Your task to perform on an android device: Show the shopping cart on newegg. Add "bose quietcomfort 35" to the cart on newegg Image 0: 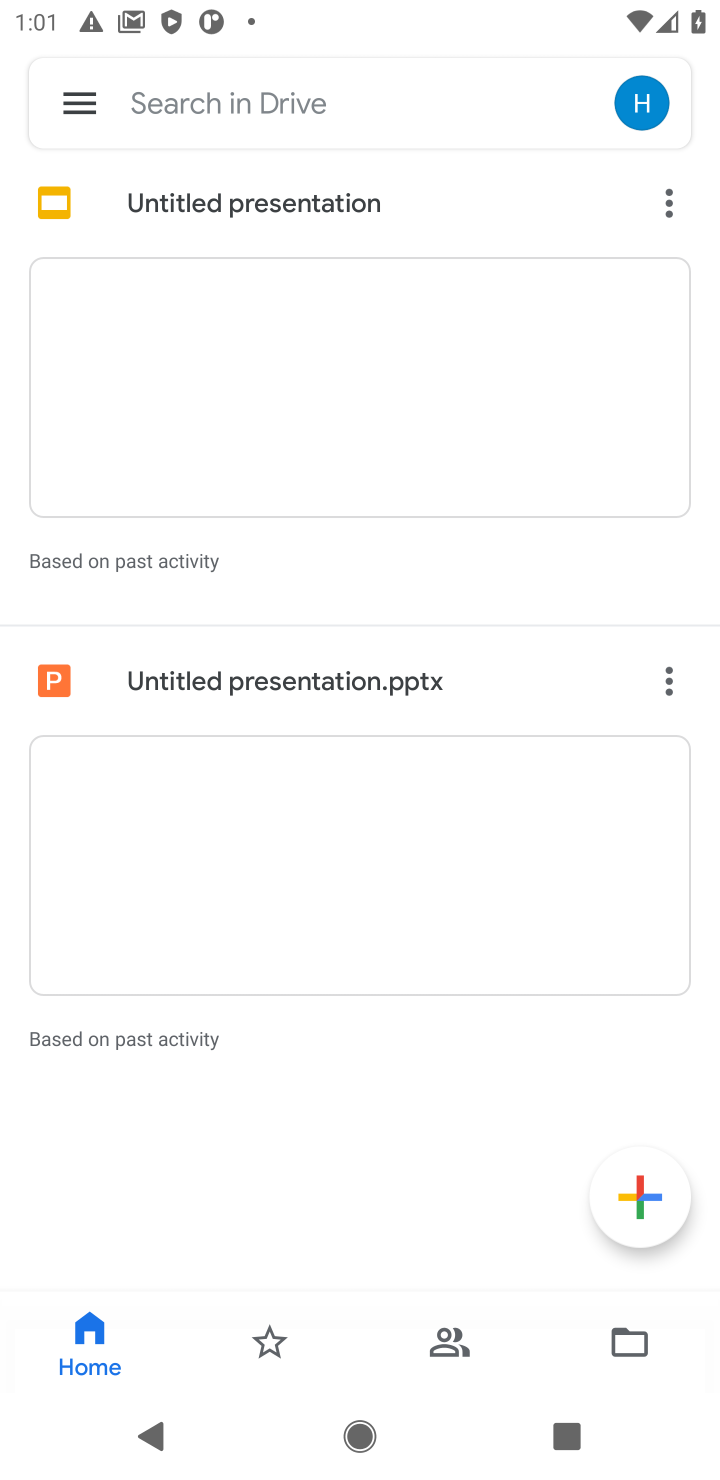
Step 0: press home button
Your task to perform on an android device: Show the shopping cart on newegg. Add "bose quietcomfort 35" to the cart on newegg Image 1: 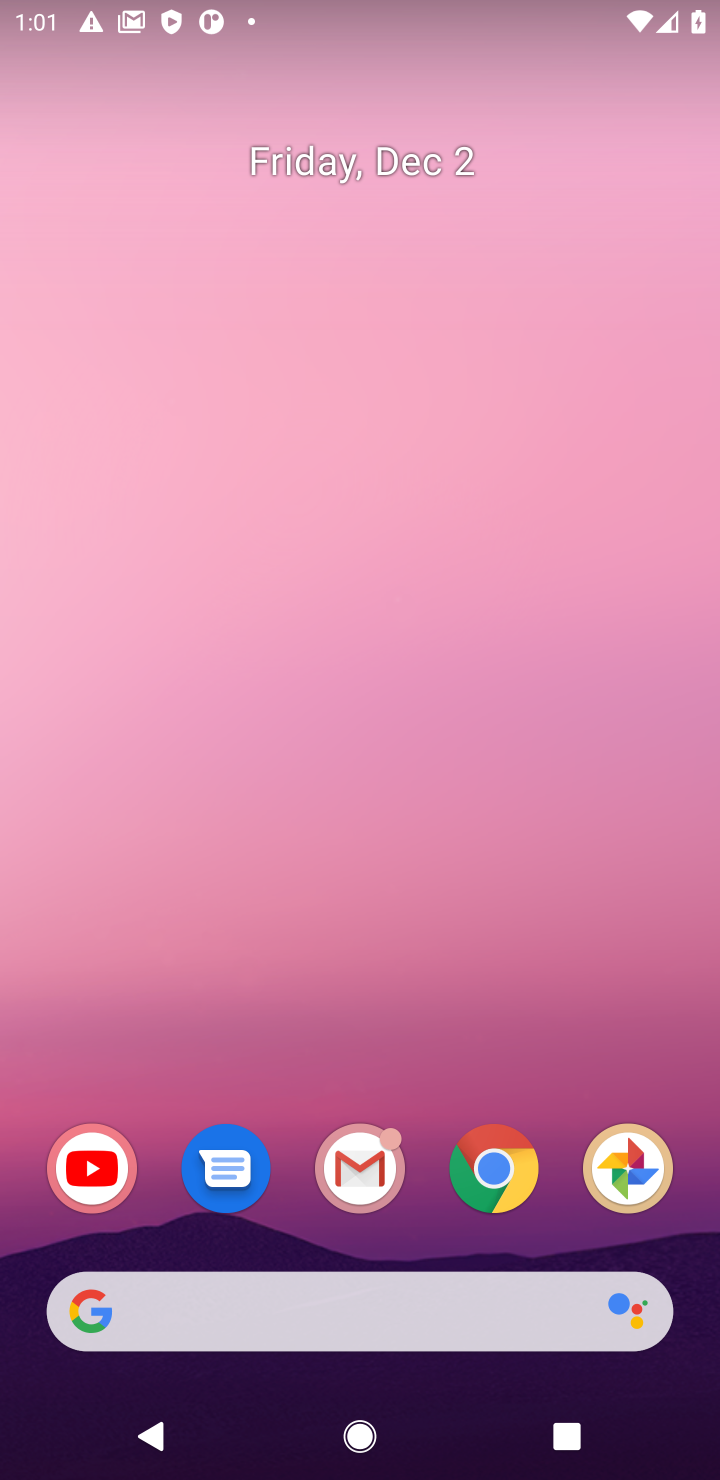
Step 1: click (502, 1172)
Your task to perform on an android device: Show the shopping cart on newegg. Add "bose quietcomfort 35" to the cart on newegg Image 2: 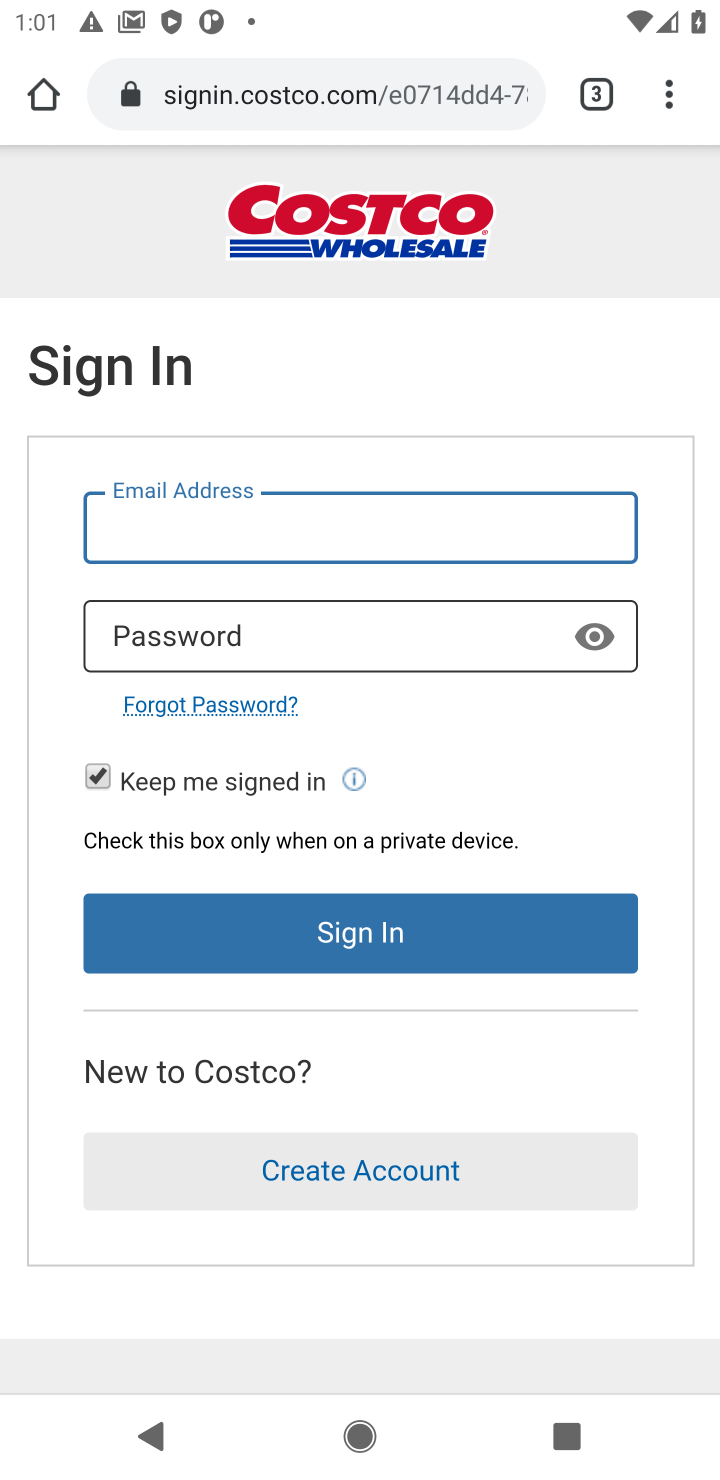
Step 2: click (248, 103)
Your task to perform on an android device: Show the shopping cart on newegg. Add "bose quietcomfort 35" to the cart on newegg Image 3: 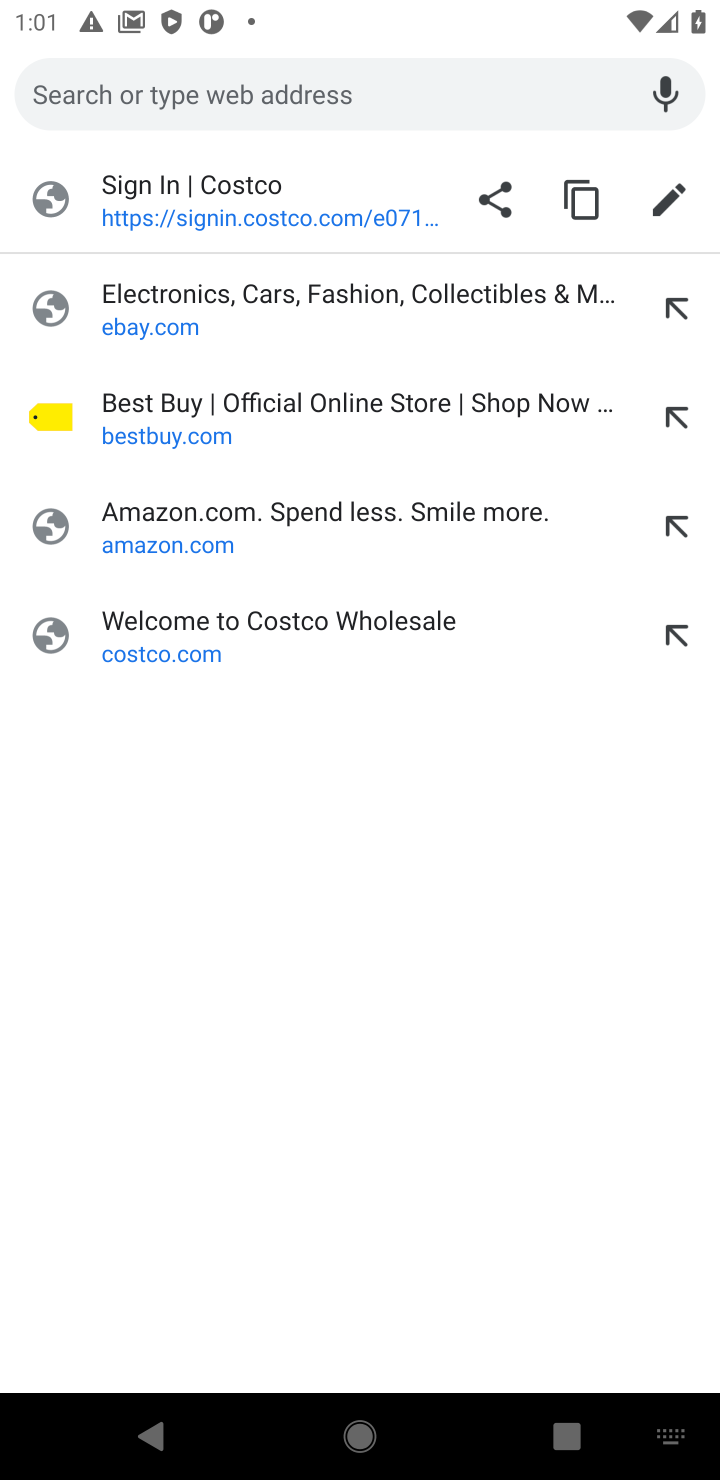
Step 3: type "newegg.com"
Your task to perform on an android device: Show the shopping cart on newegg. Add "bose quietcomfort 35" to the cart on newegg Image 4: 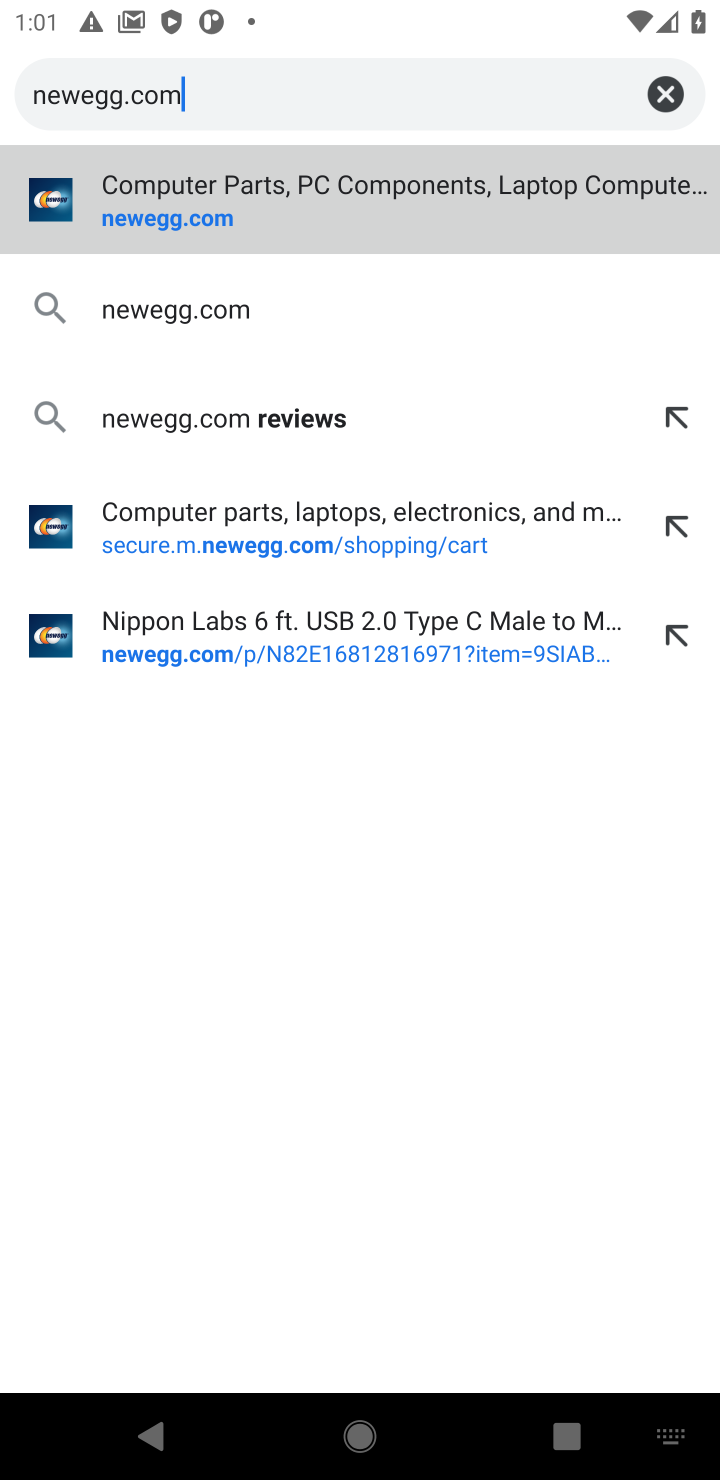
Step 4: click (176, 215)
Your task to perform on an android device: Show the shopping cart on newegg. Add "bose quietcomfort 35" to the cart on newegg Image 5: 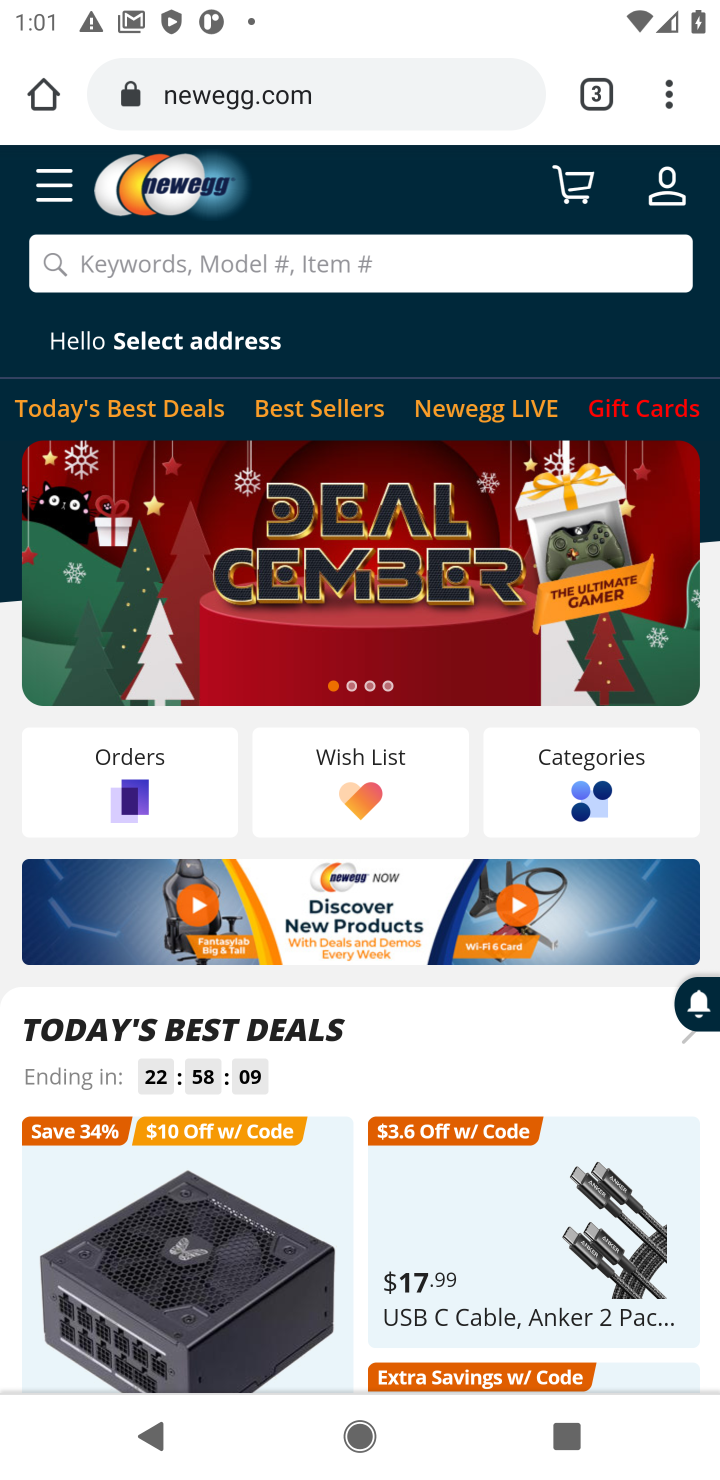
Step 5: click (578, 197)
Your task to perform on an android device: Show the shopping cart on newegg. Add "bose quietcomfort 35" to the cart on newegg Image 6: 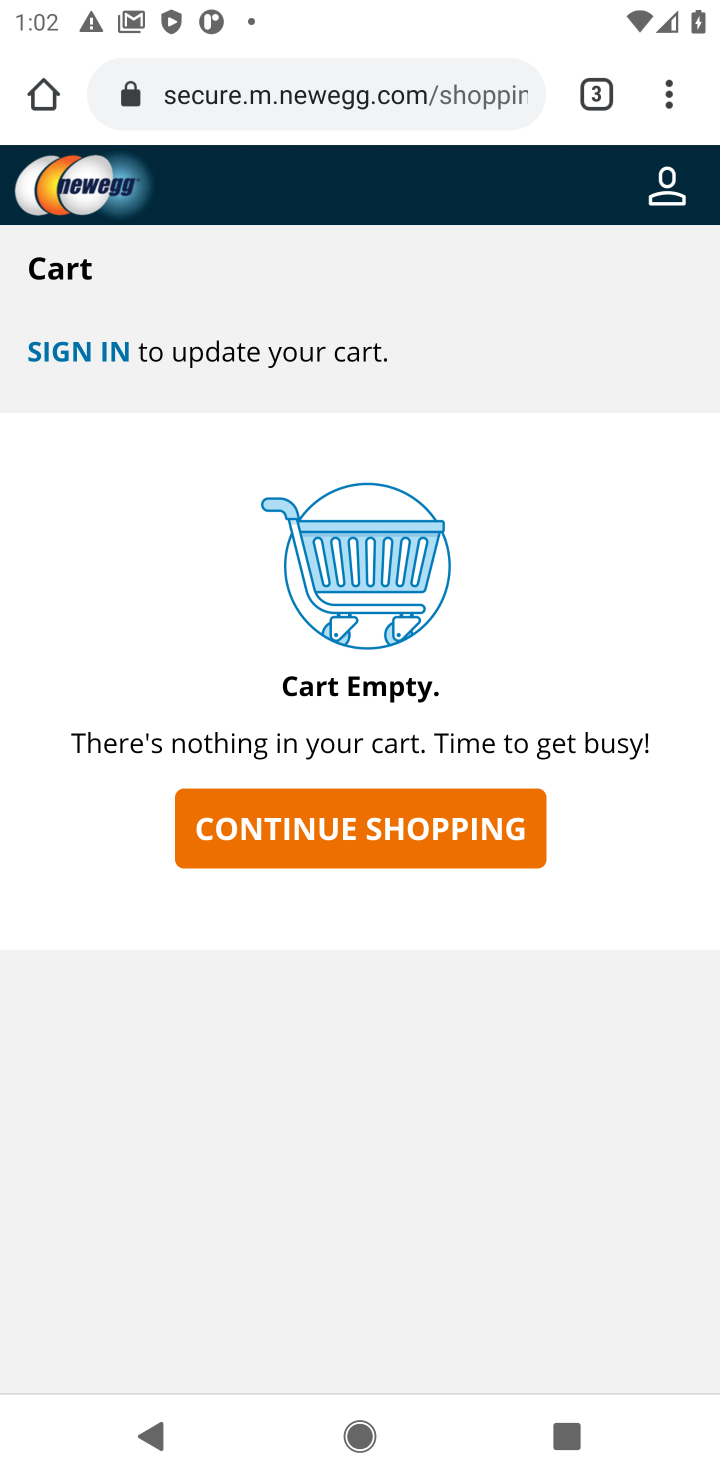
Step 6: click (359, 835)
Your task to perform on an android device: Show the shopping cart on newegg. Add "bose quietcomfort 35" to the cart on newegg Image 7: 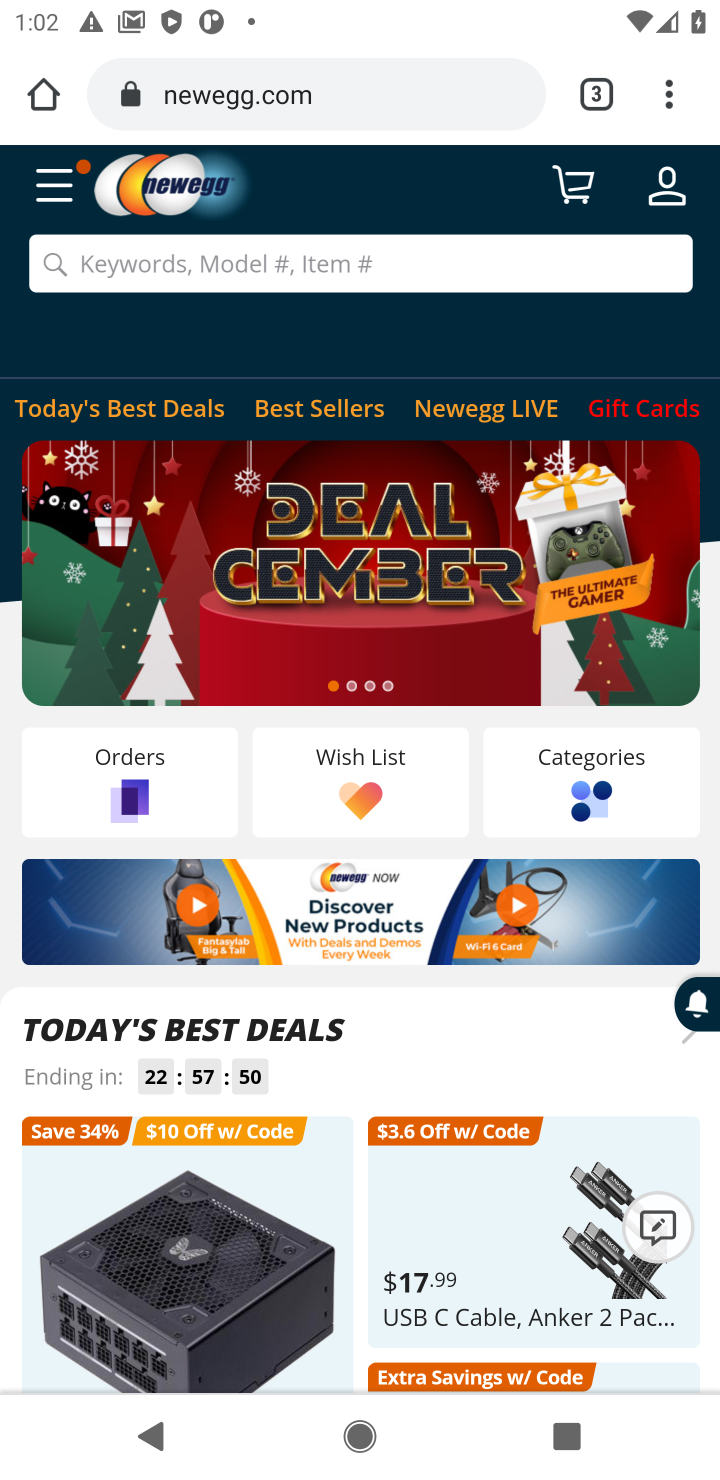
Step 7: click (164, 268)
Your task to perform on an android device: Show the shopping cart on newegg. Add "bose quietcomfort 35" to the cart on newegg Image 8: 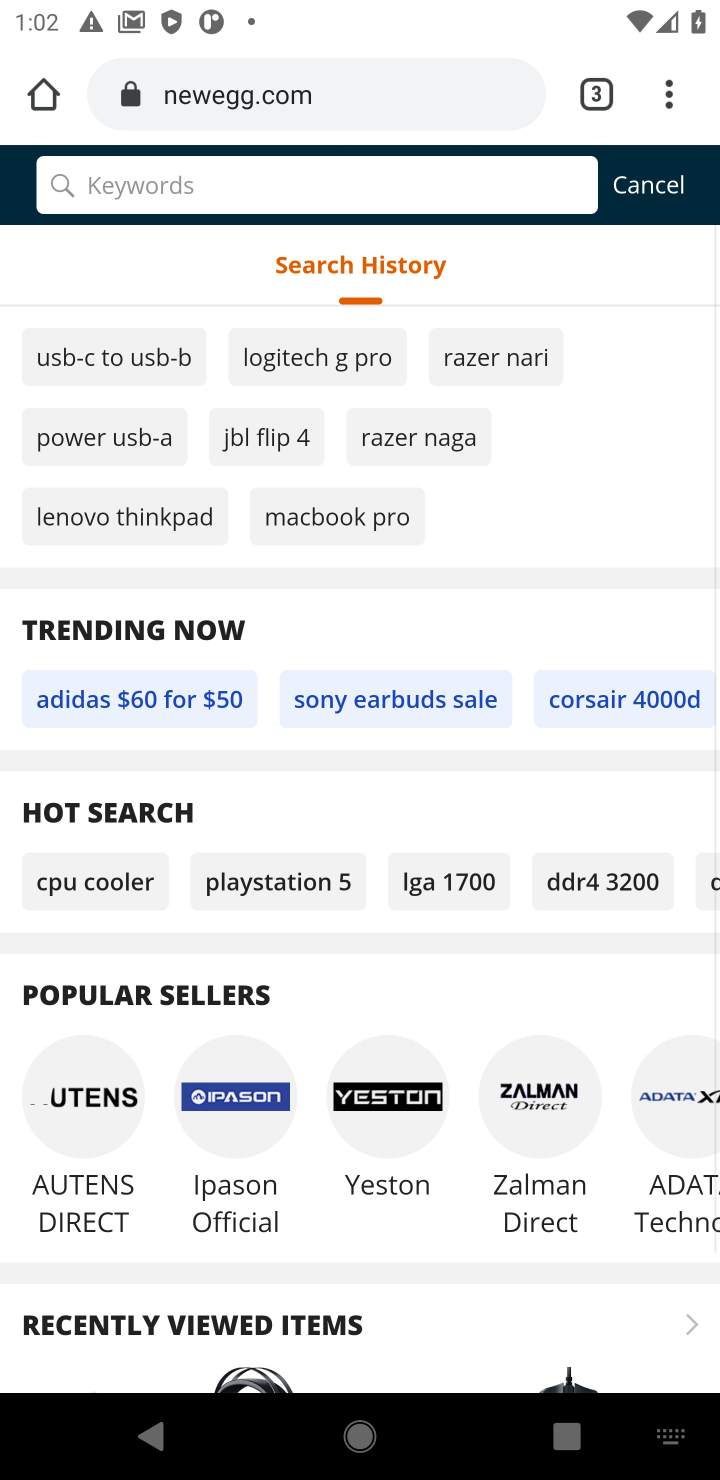
Step 8: click (236, 267)
Your task to perform on an android device: Show the shopping cart on newegg. Add "bose quietcomfort 35" to the cart on newegg Image 9: 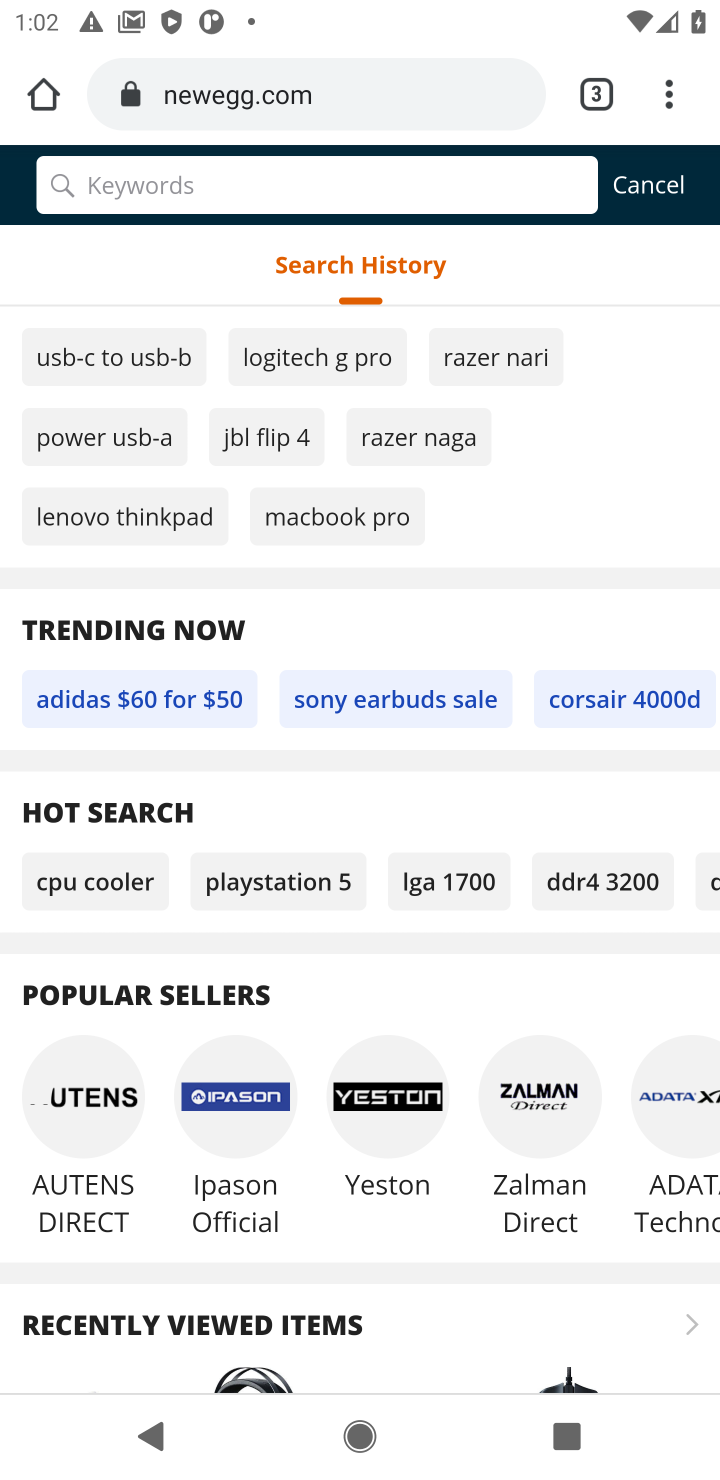
Step 9: type "bose quietcomfort 35"
Your task to perform on an android device: Show the shopping cart on newegg. Add "bose quietcomfort 35" to the cart on newegg Image 10: 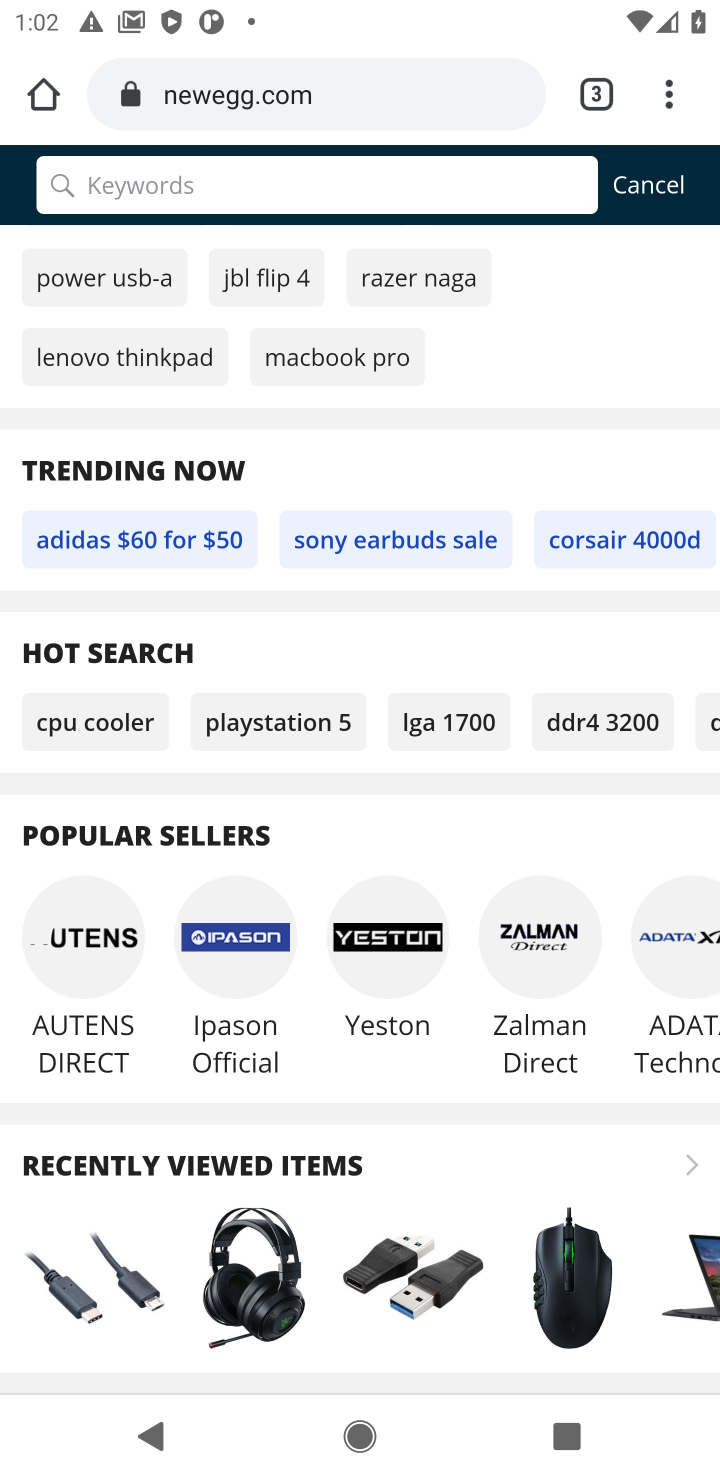
Step 10: click (150, 179)
Your task to perform on an android device: Show the shopping cart on newegg. Add "bose quietcomfort 35" to the cart on newegg Image 11: 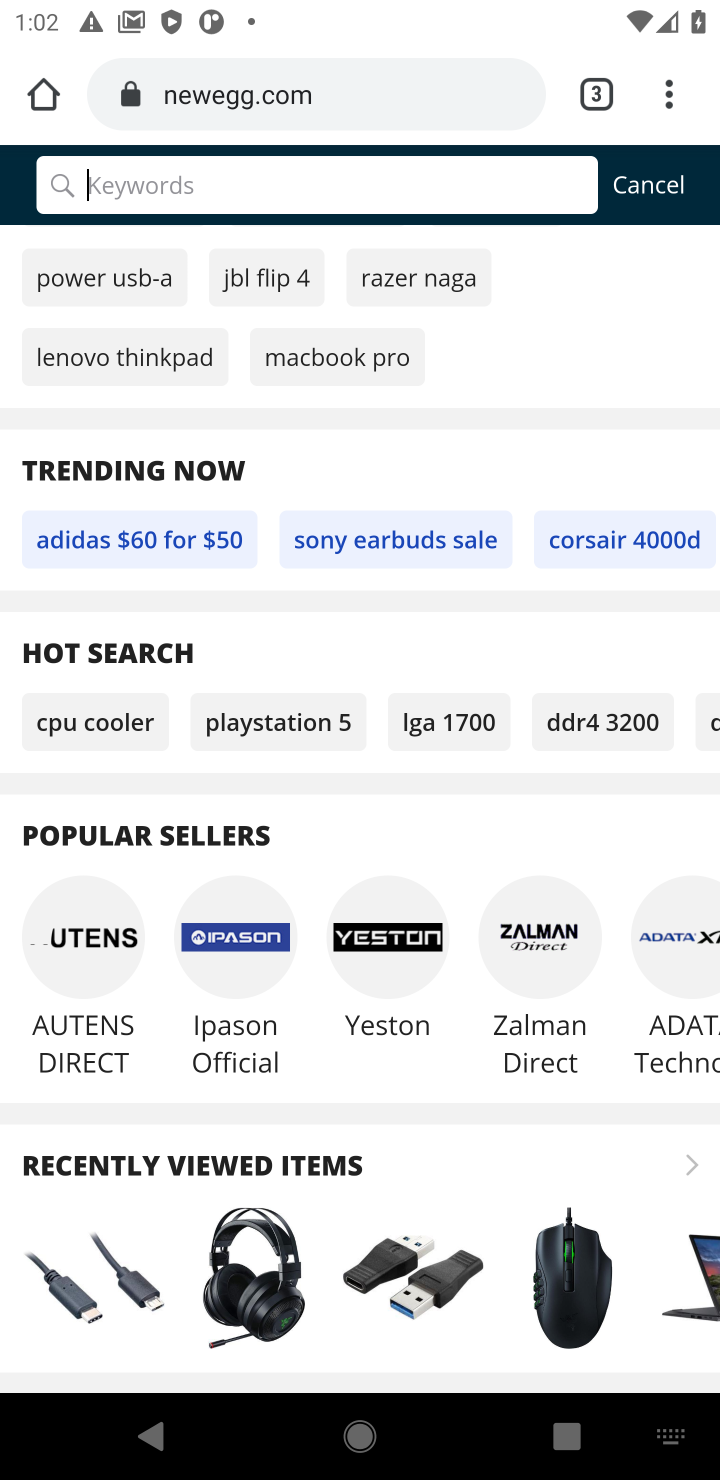
Step 11: type "bose quietcomfort 35"
Your task to perform on an android device: Show the shopping cart on newegg. Add "bose quietcomfort 35" to the cart on newegg Image 12: 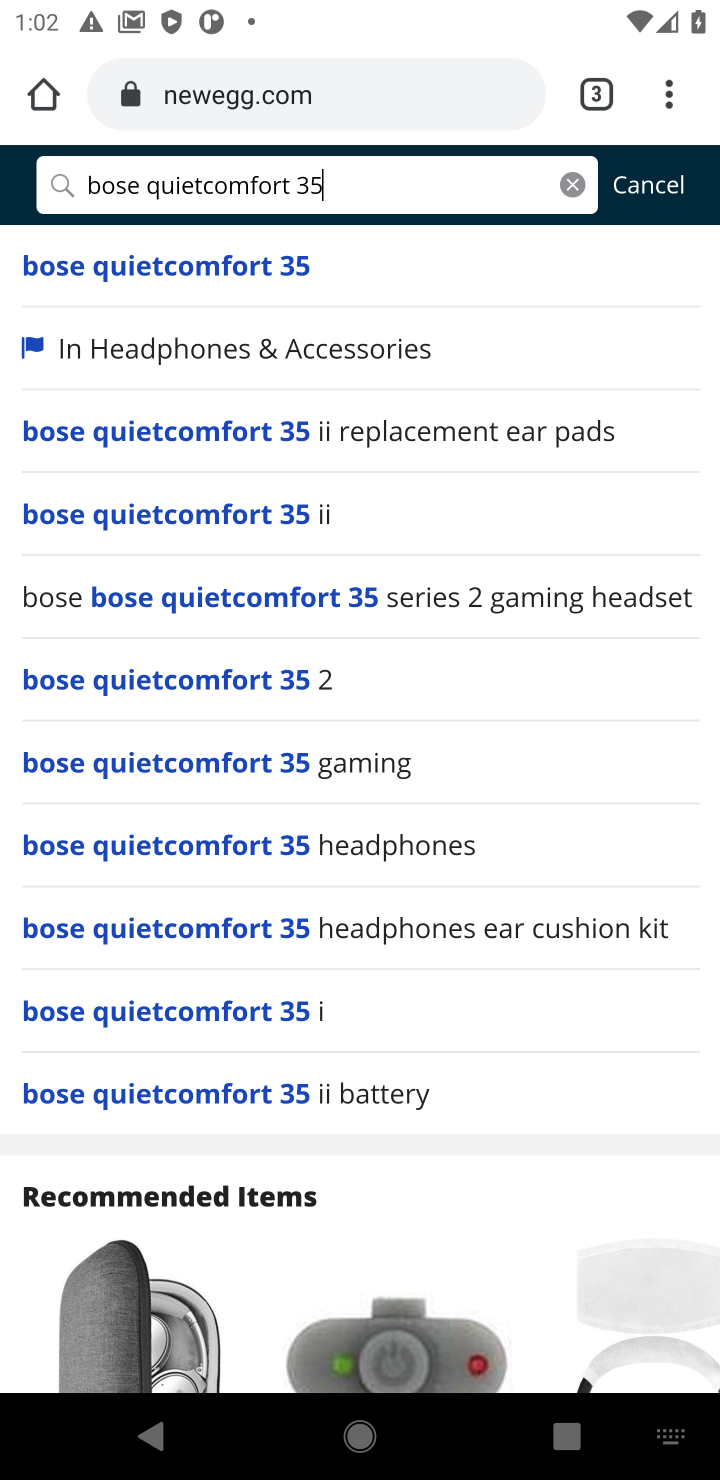
Step 12: click (149, 265)
Your task to perform on an android device: Show the shopping cart on newegg. Add "bose quietcomfort 35" to the cart on newegg Image 13: 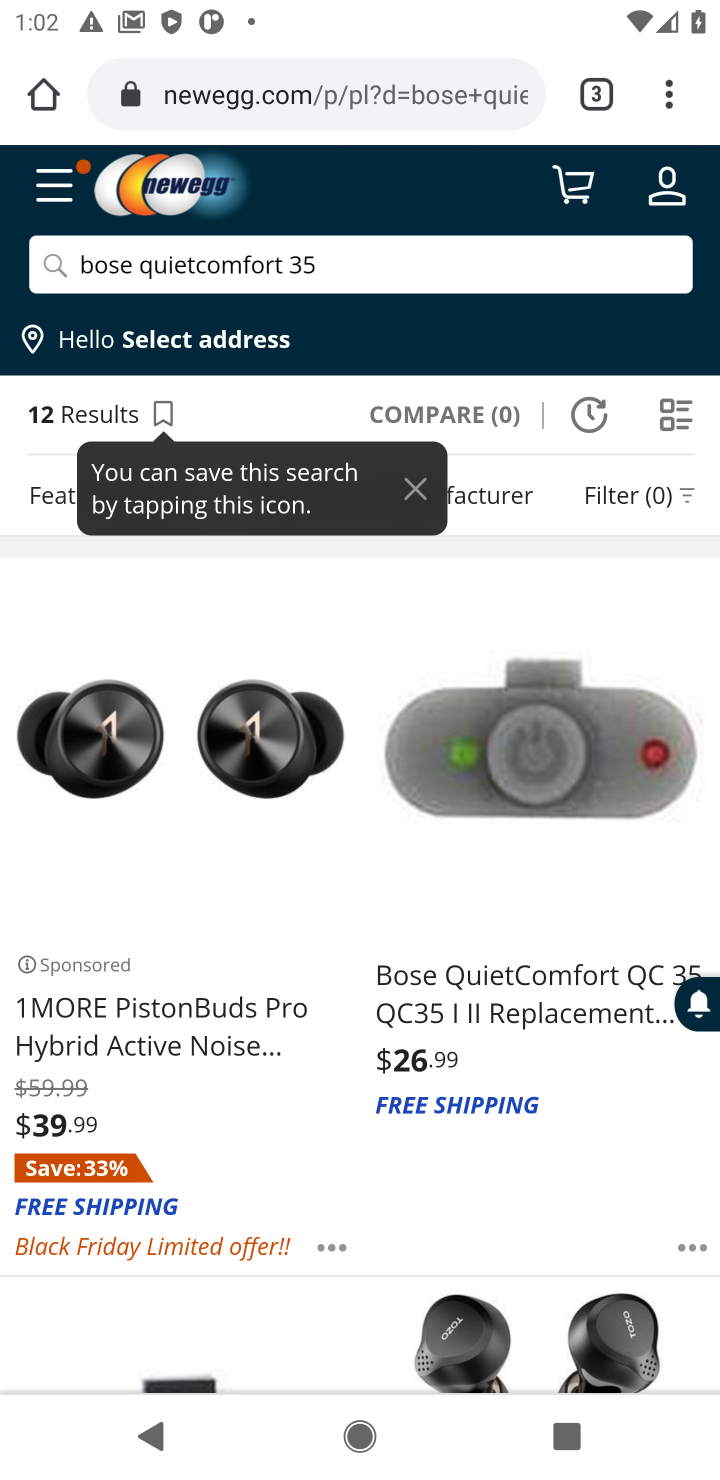
Step 13: drag from (242, 957) to (271, 674)
Your task to perform on an android device: Show the shopping cart on newegg. Add "bose quietcomfort 35" to the cart on newegg Image 14: 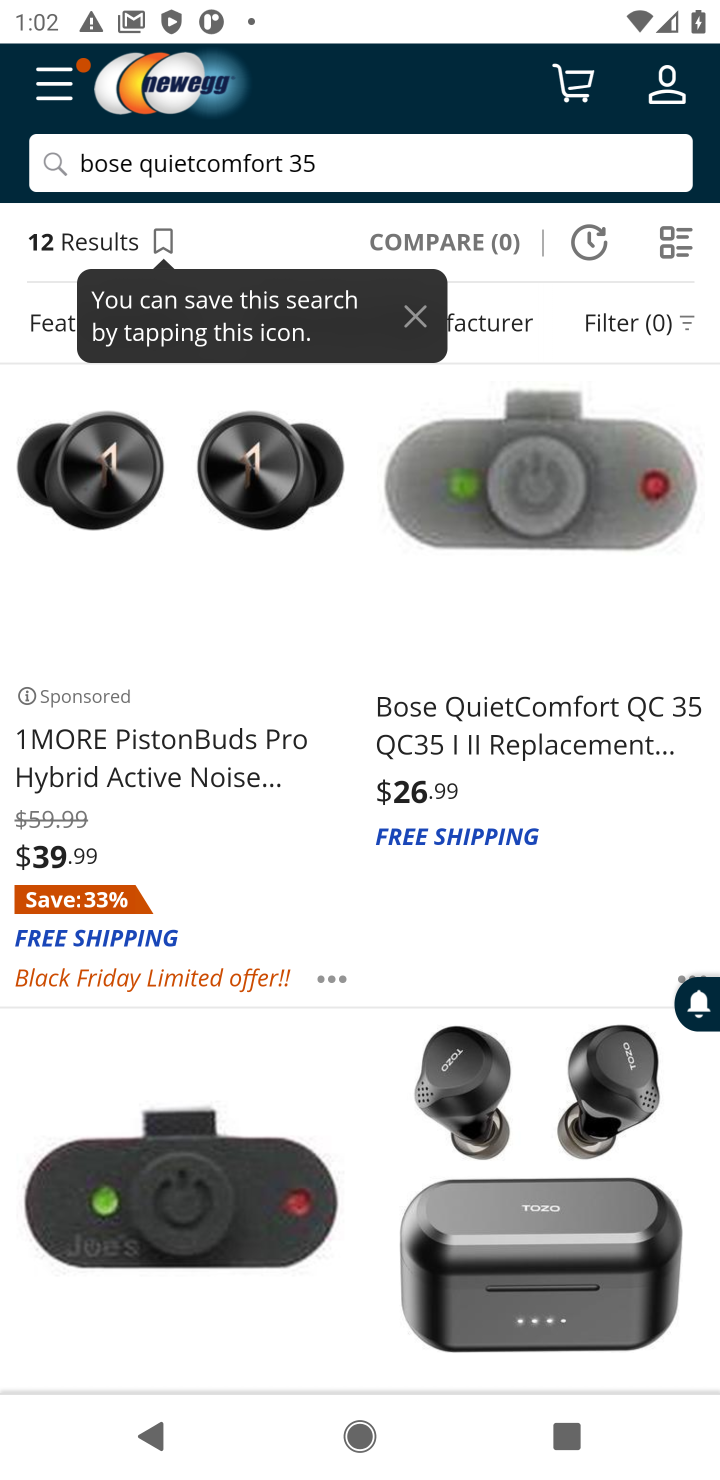
Step 14: click (508, 716)
Your task to perform on an android device: Show the shopping cart on newegg. Add "bose quietcomfort 35" to the cart on newegg Image 15: 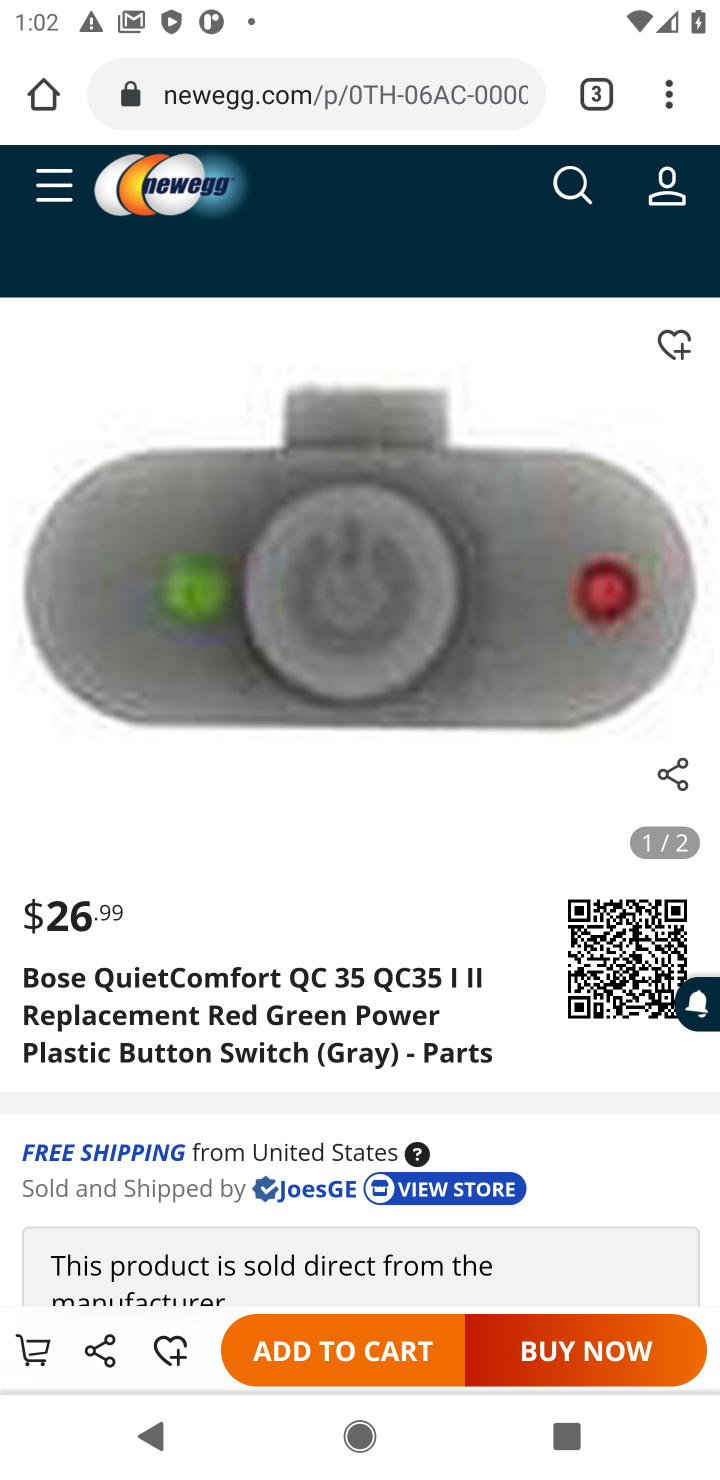
Step 15: click (361, 1355)
Your task to perform on an android device: Show the shopping cart on newegg. Add "bose quietcomfort 35" to the cart on newegg Image 16: 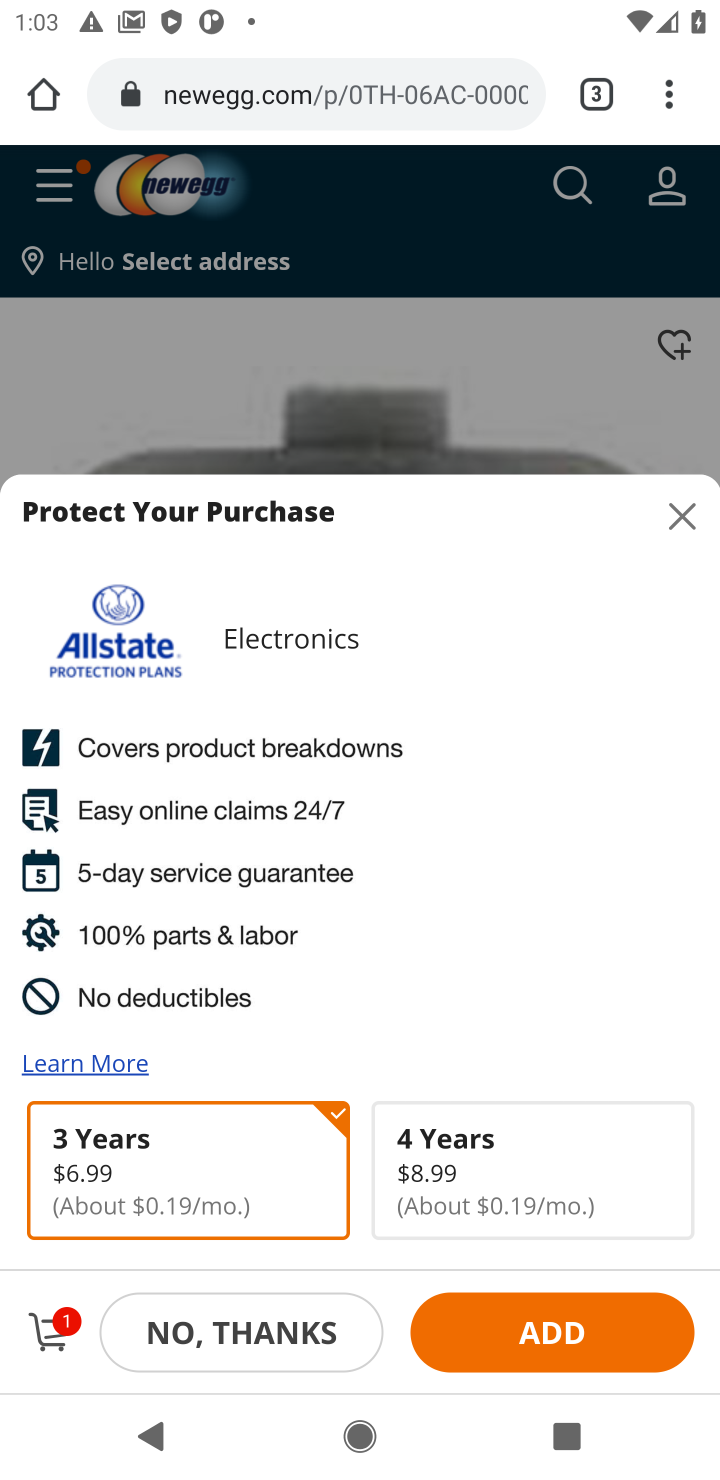
Step 16: task complete